Your task to perform on an android device: Clear all items from cart on amazon.com. Search for "usb-c to usb-b" on amazon.com, select the first entry, add it to the cart, then select checkout. Image 0: 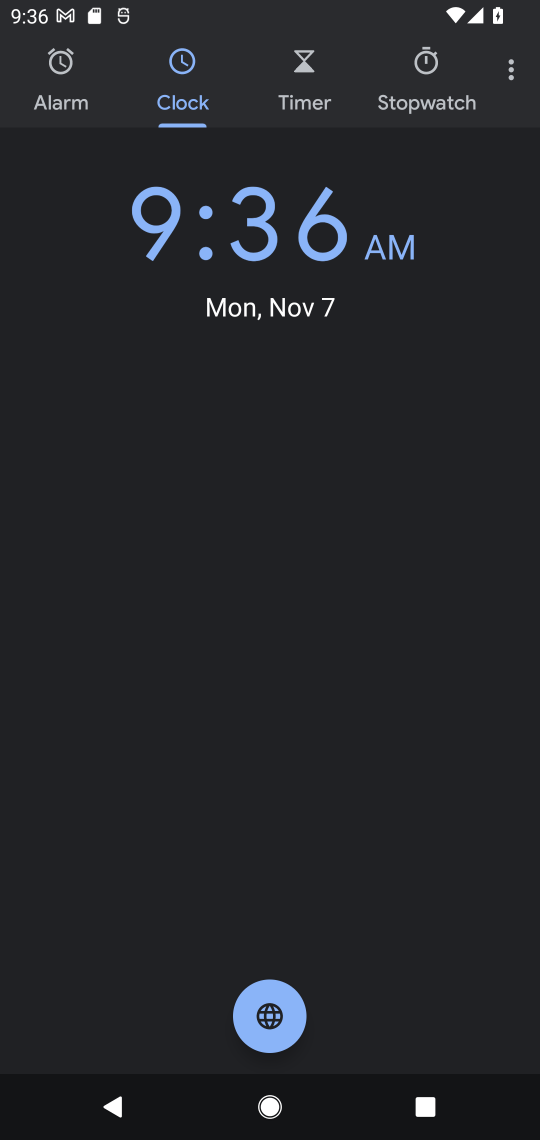
Step 0: press home button
Your task to perform on an android device: Clear all items from cart on amazon.com. Search for "usb-c to usb-b" on amazon.com, select the first entry, add it to the cart, then select checkout. Image 1: 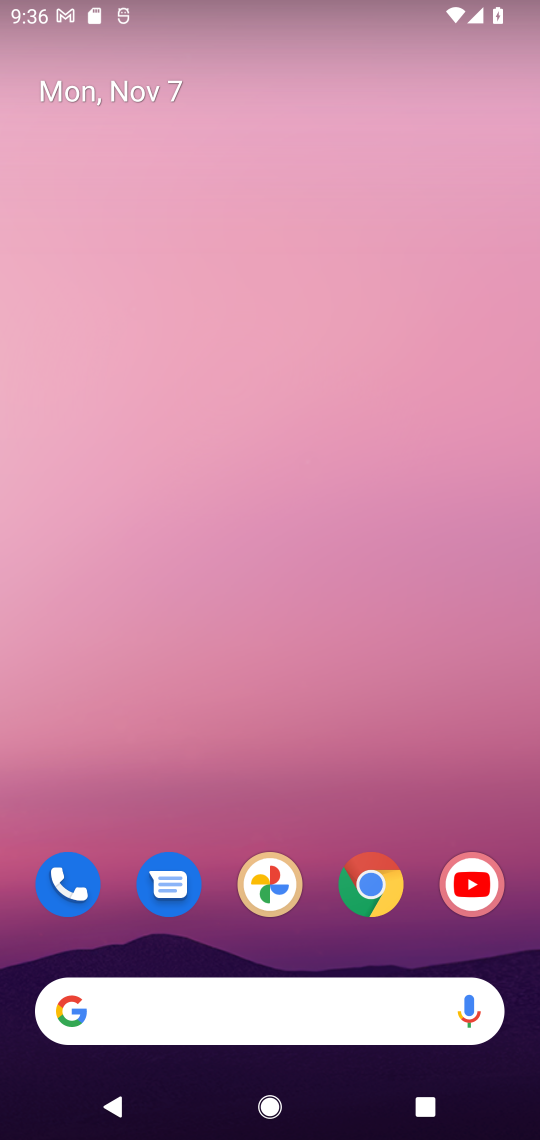
Step 1: click (366, 890)
Your task to perform on an android device: Clear all items from cart on amazon.com. Search for "usb-c to usb-b" on amazon.com, select the first entry, add it to the cart, then select checkout. Image 2: 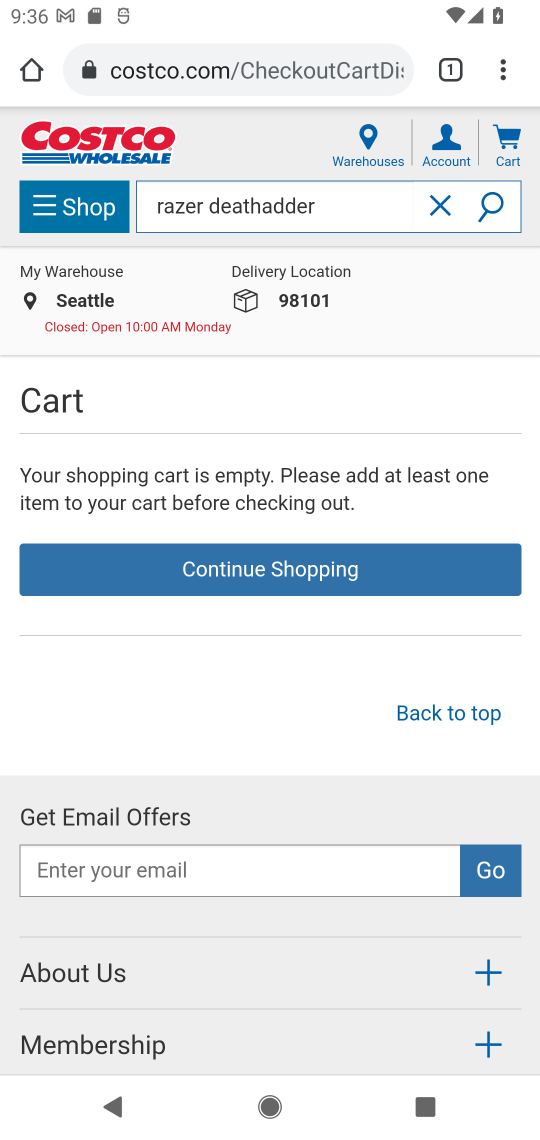
Step 2: click (32, 64)
Your task to perform on an android device: Clear all items from cart on amazon.com. Search for "usb-c to usb-b" on amazon.com, select the first entry, add it to the cart, then select checkout. Image 3: 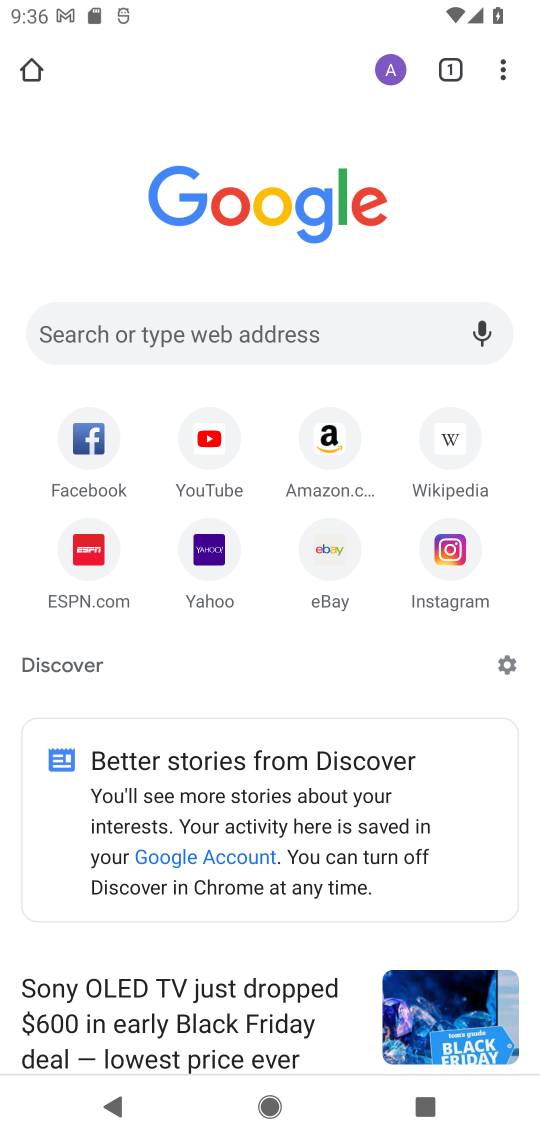
Step 3: click (346, 445)
Your task to perform on an android device: Clear all items from cart on amazon.com. Search for "usb-c to usb-b" on amazon.com, select the first entry, add it to the cart, then select checkout. Image 4: 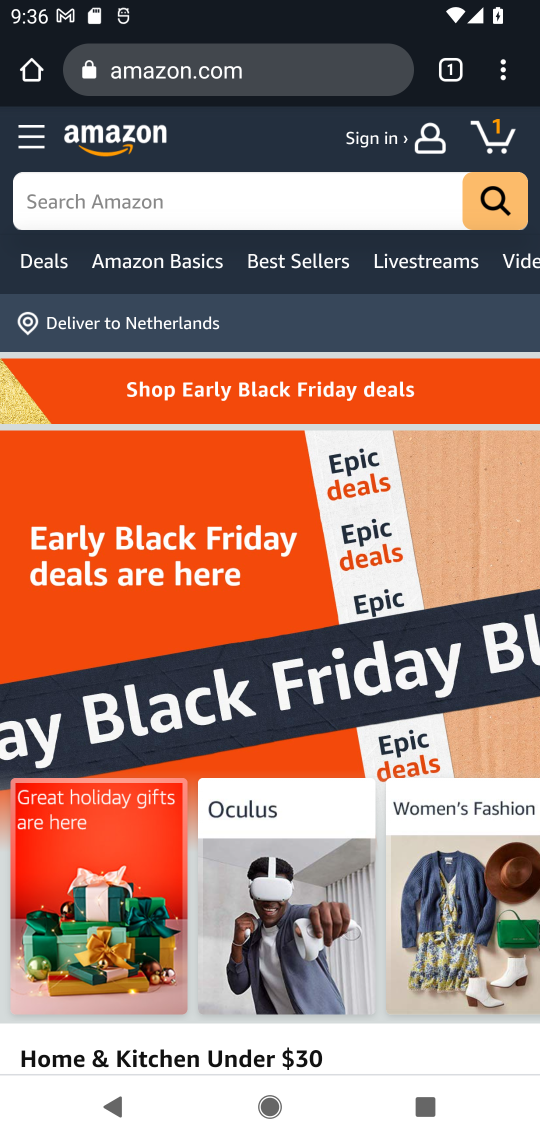
Step 4: click (488, 140)
Your task to perform on an android device: Clear all items from cart on amazon.com. Search for "usb-c to usb-b" on amazon.com, select the first entry, add it to the cart, then select checkout. Image 5: 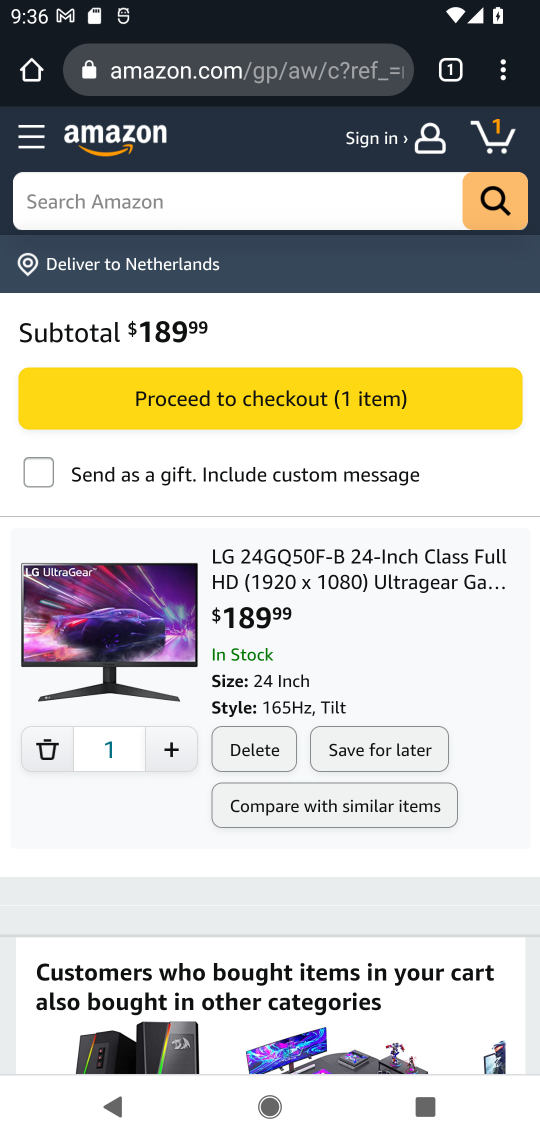
Step 5: click (266, 736)
Your task to perform on an android device: Clear all items from cart on amazon.com. Search for "usb-c to usb-b" on amazon.com, select the first entry, add it to the cart, then select checkout. Image 6: 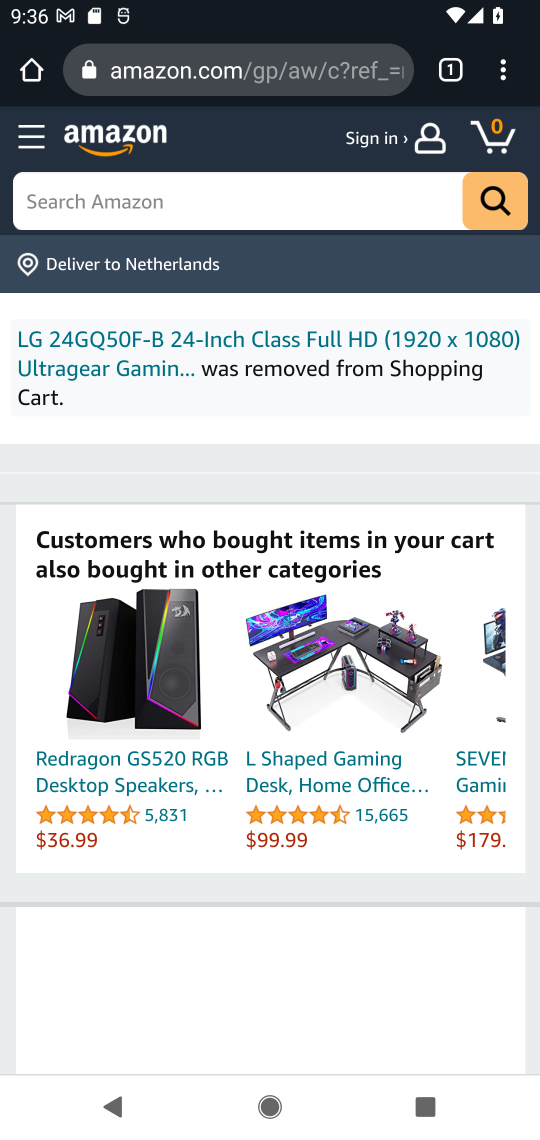
Step 6: click (334, 182)
Your task to perform on an android device: Clear all items from cart on amazon.com. Search for "usb-c to usb-b" on amazon.com, select the first entry, add it to the cart, then select checkout. Image 7: 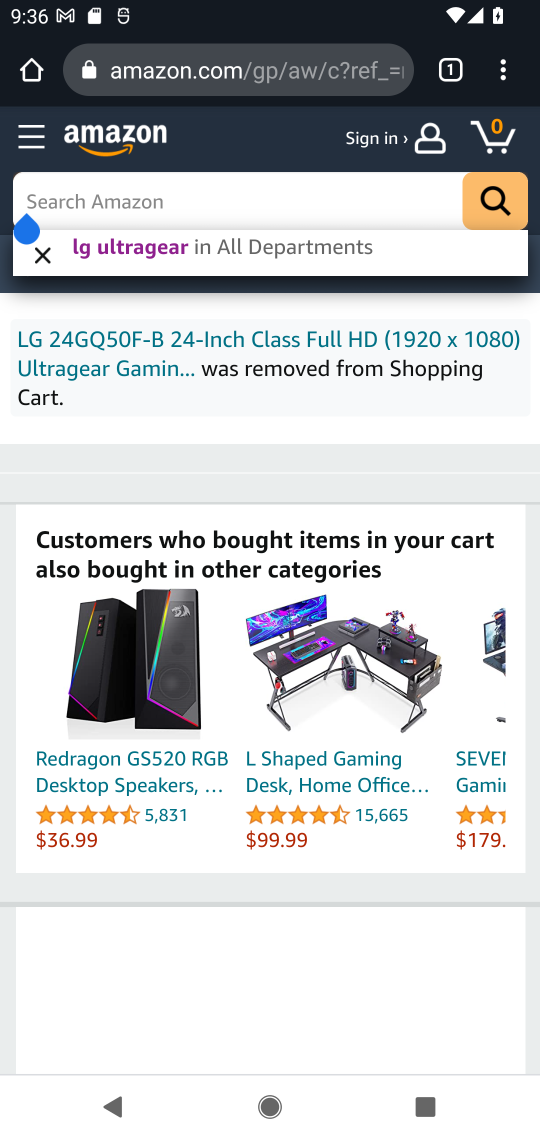
Step 7: type "usb-c to usb-b"
Your task to perform on an android device: Clear all items from cart on amazon.com. Search for "usb-c to usb-b" on amazon.com, select the first entry, add it to the cart, then select checkout. Image 8: 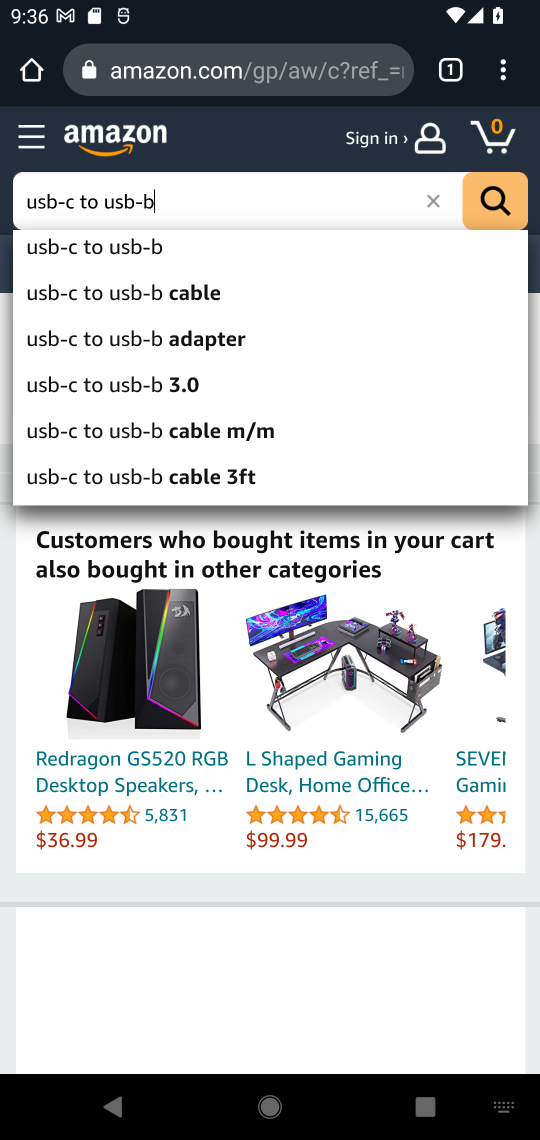
Step 8: click (152, 239)
Your task to perform on an android device: Clear all items from cart on amazon.com. Search for "usb-c to usb-b" on amazon.com, select the first entry, add it to the cart, then select checkout. Image 9: 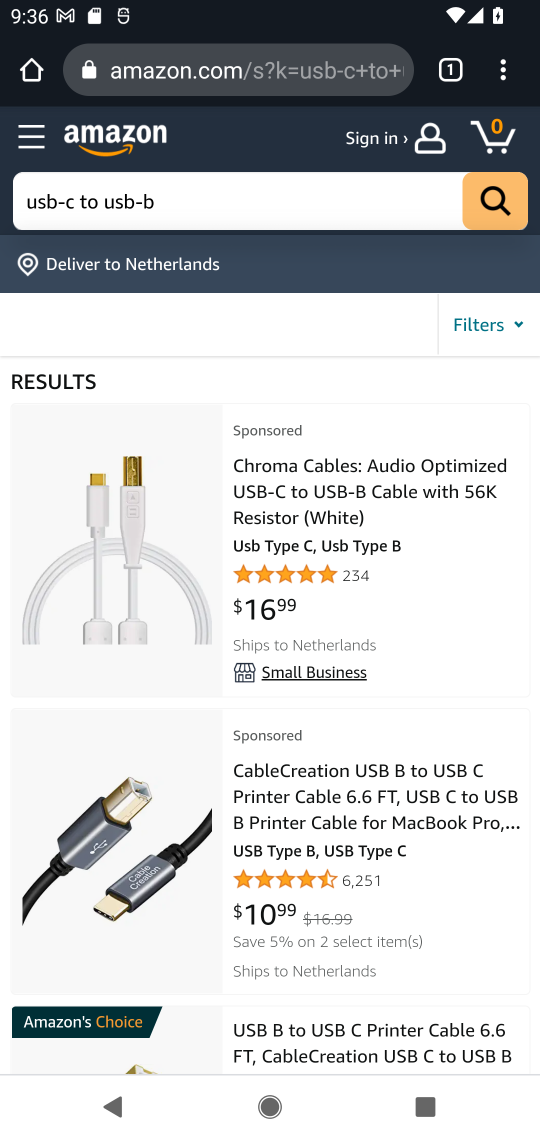
Step 9: click (118, 556)
Your task to perform on an android device: Clear all items from cart on amazon.com. Search for "usb-c to usb-b" on amazon.com, select the first entry, add it to the cart, then select checkout. Image 10: 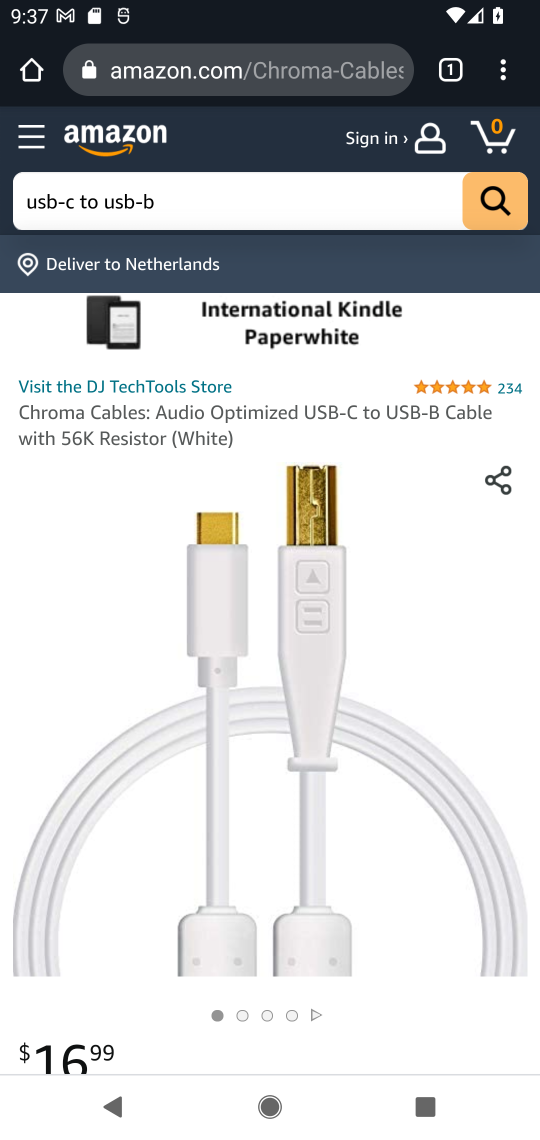
Step 10: drag from (392, 721) to (383, 301)
Your task to perform on an android device: Clear all items from cart on amazon.com. Search for "usb-c to usb-b" on amazon.com, select the first entry, add it to the cart, then select checkout. Image 11: 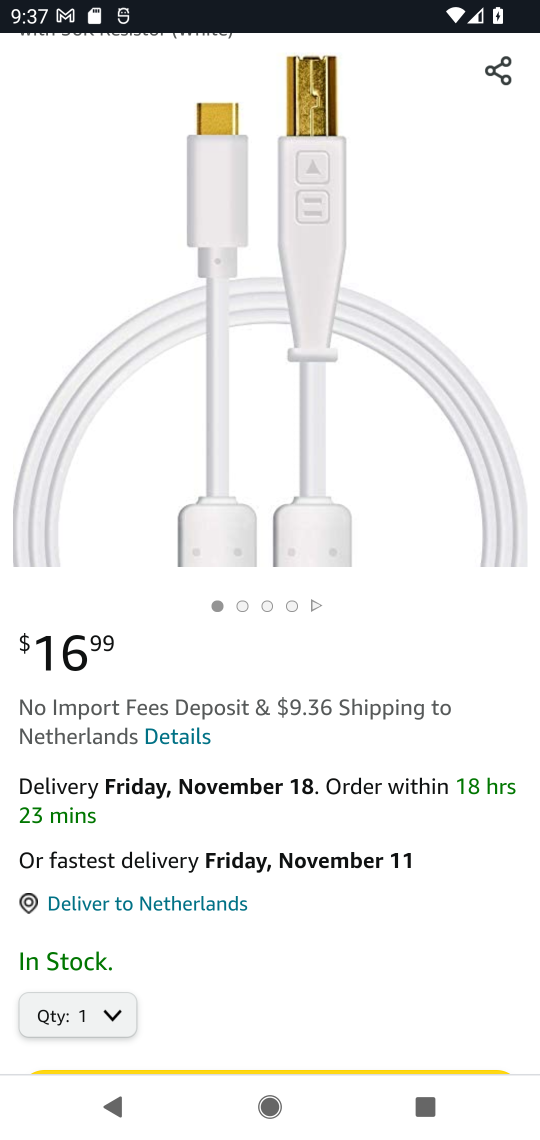
Step 11: drag from (420, 939) to (348, 387)
Your task to perform on an android device: Clear all items from cart on amazon.com. Search for "usb-c to usb-b" on amazon.com, select the first entry, add it to the cart, then select checkout. Image 12: 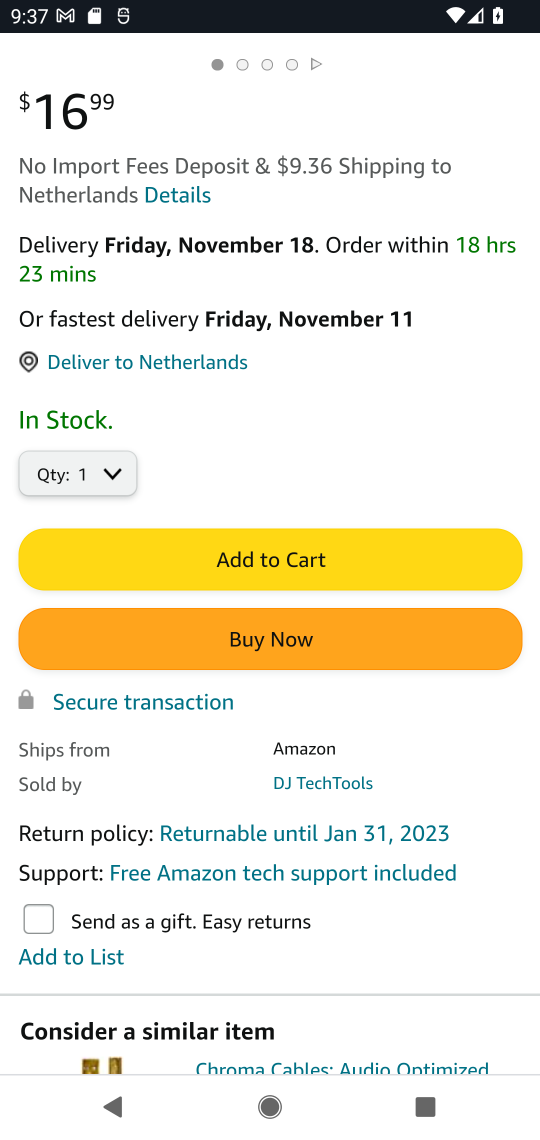
Step 12: click (316, 564)
Your task to perform on an android device: Clear all items from cart on amazon.com. Search for "usb-c to usb-b" on amazon.com, select the first entry, add it to the cart, then select checkout. Image 13: 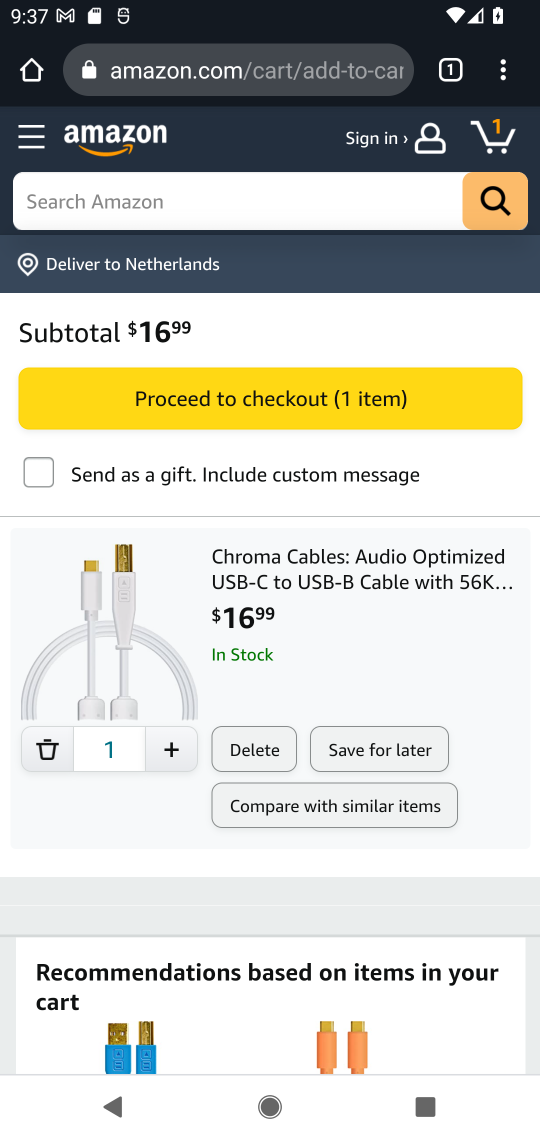
Step 13: click (327, 385)
Your task to perform on an android device: Clear all items from cart on amazon.com. Search for "usb-c to usb-b" on amazon.com, select the first entry, add it to the cart, then select checkout. Image 14: 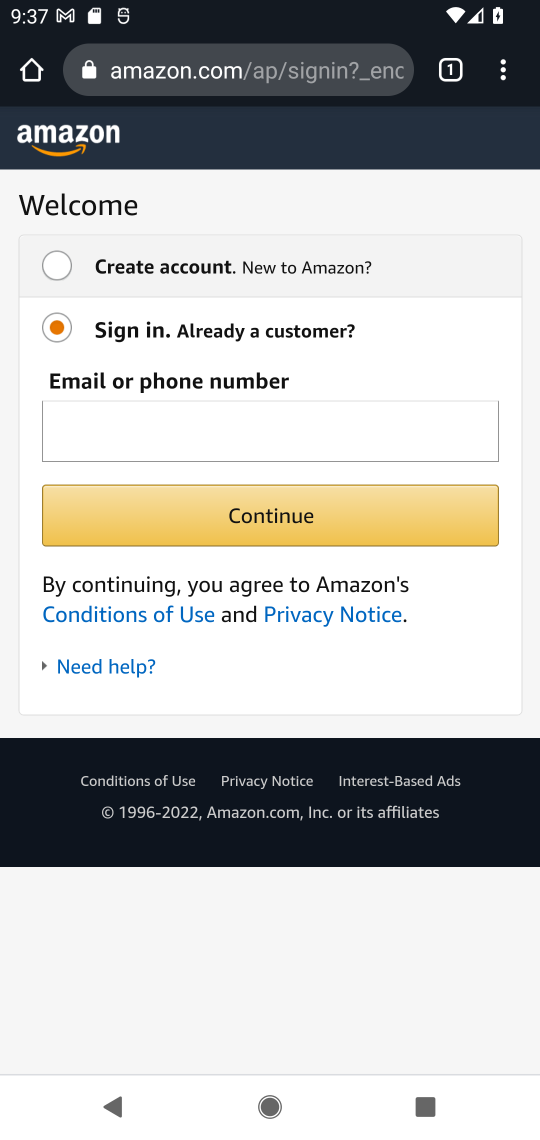
Step 14: task complete